Your task to perform on an android device: Go to ESPN.com Image 0: 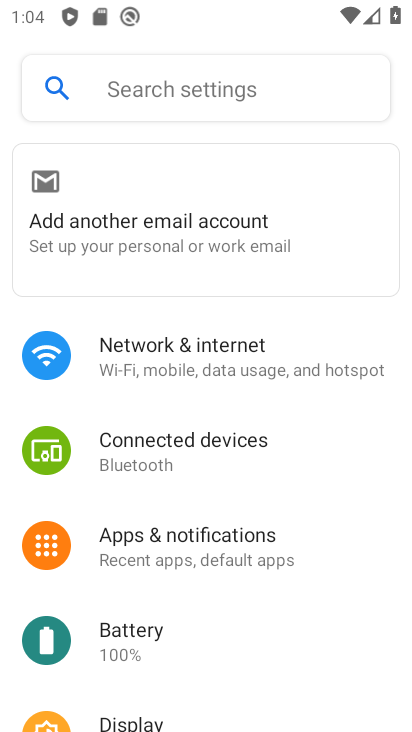
Step 0: press home button
Your task to perform on an android device: Go to ESPN.com Image 1: 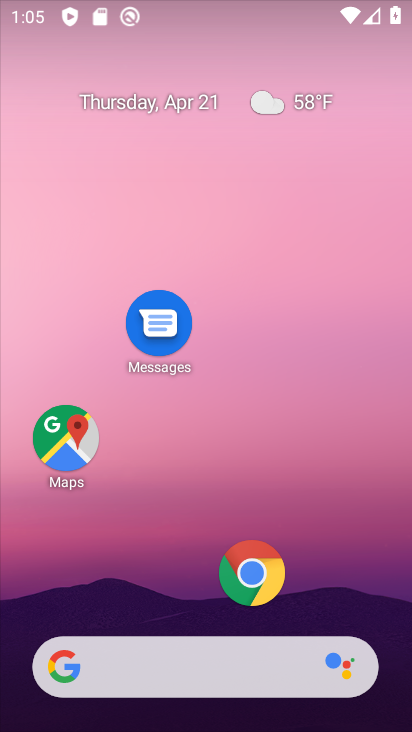
Step 1: drag from (154, 441) to (151, 31)
Your task to perform on an android device: Go to ESPN.com Image 2: 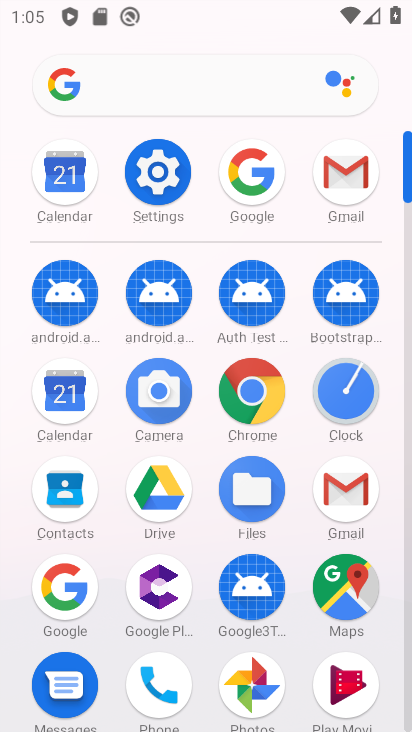
Step 2: click (241, 161)
Your task to perform on an android device: Go to ESPN.com Image 3: 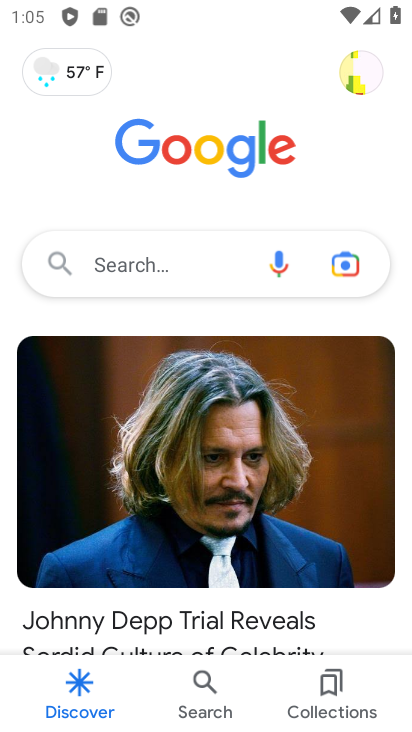
Step 3: click (145, 255)
Your task to perform on an android device: Go to ESPN.com Image 4: 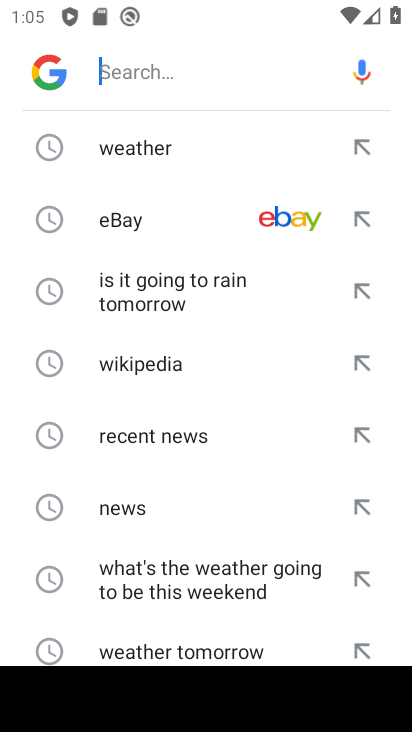
Step 4: drag from (217, 421) to (206, 143)
Your task to perform on an android device: Go to ESPN.com Image 5: 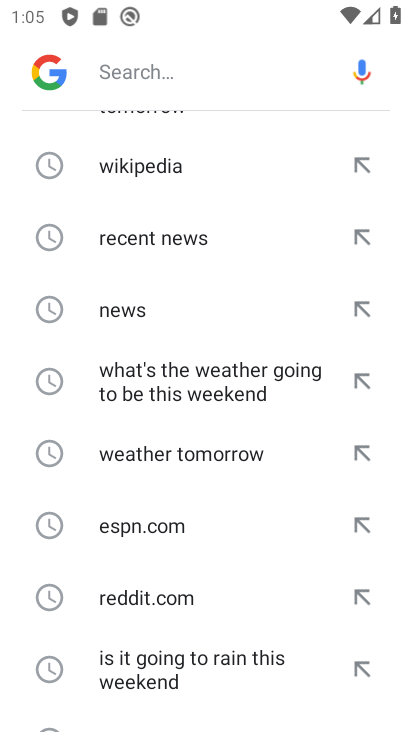
Step 5: click (154, 523)
Your task to perform on an android device: Go to ESPN.com Image 6: 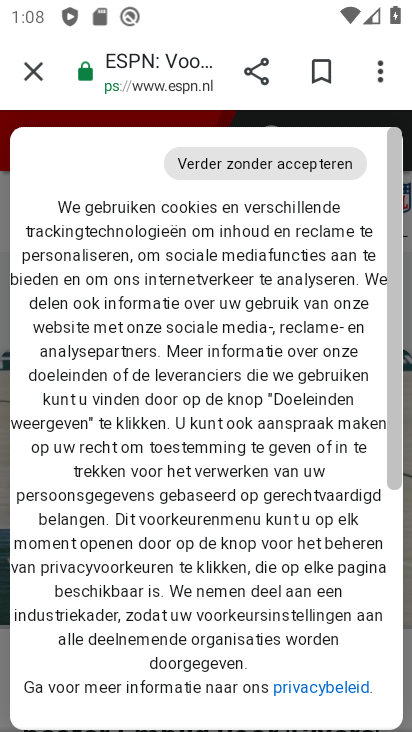
Step 6: task complete